Your task to perform on an android device: Open my contact list Image 0: 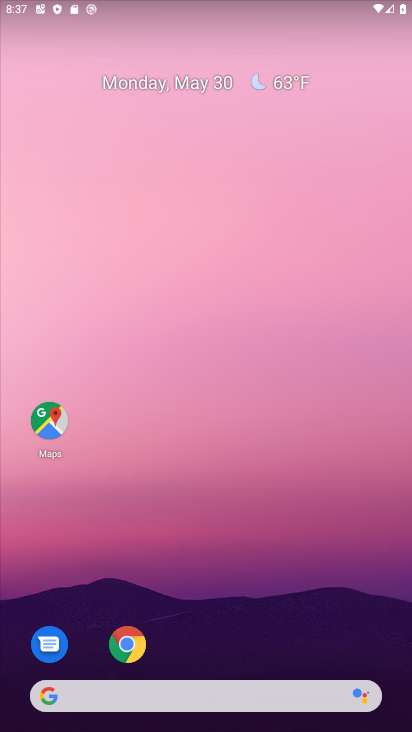
Step 0: drag from (188, 496) to (184, 70)
Your task to perform on an android device: Open my contact list Image 1: 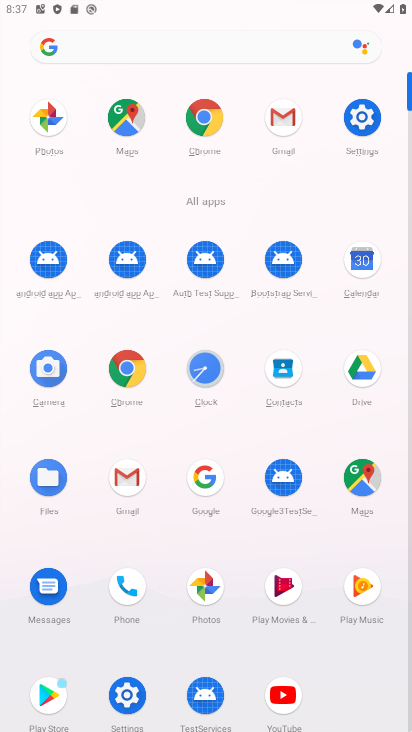
Step 1: click (283, 368)
Your task to perform on an android device: Open my contact list Image 2: 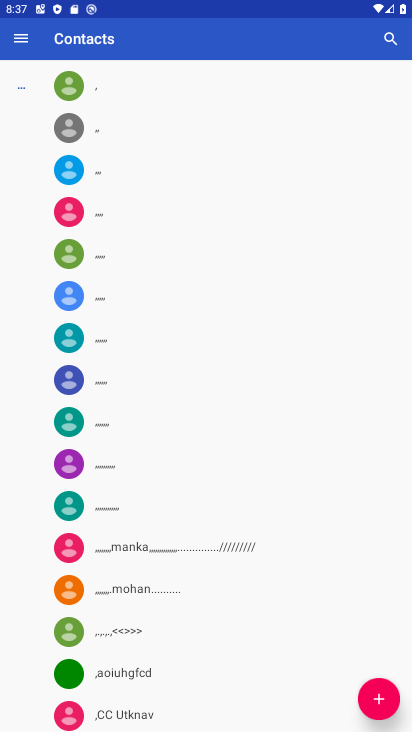
Step 2: task complete